Your task to perform on an android device: turn off translation in the chrome app Image 0: 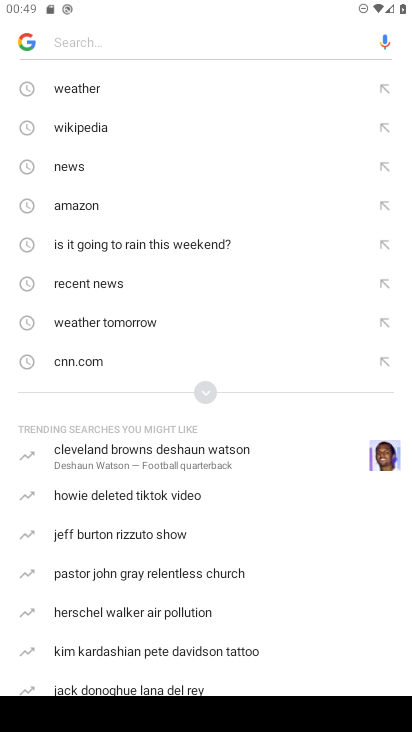
Step 0: press home button
Your task to perform on an android device: turn off translation in the chrome app Image 1: 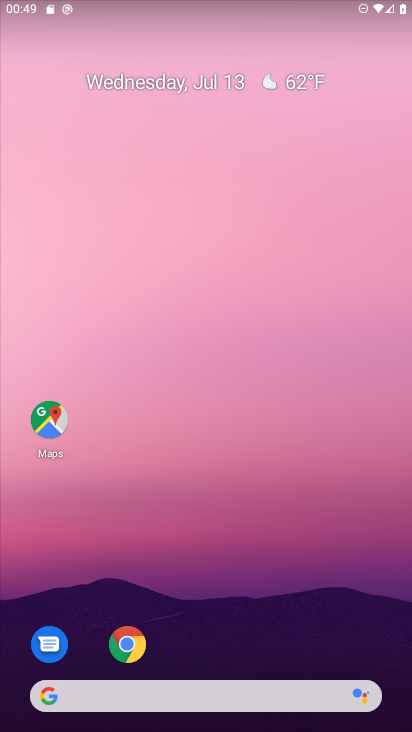
Step 1: drag from (239, 648) to (222, 110)
Your task to perform on an android device: turn off translation in the chrome app Image 2: 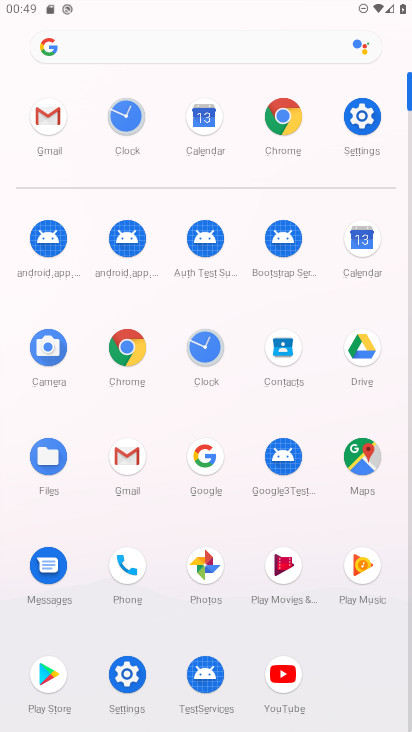
Step 2: click (291, 123)
Your task to perform on an android device: turn off translation in the chrome app Image 3: 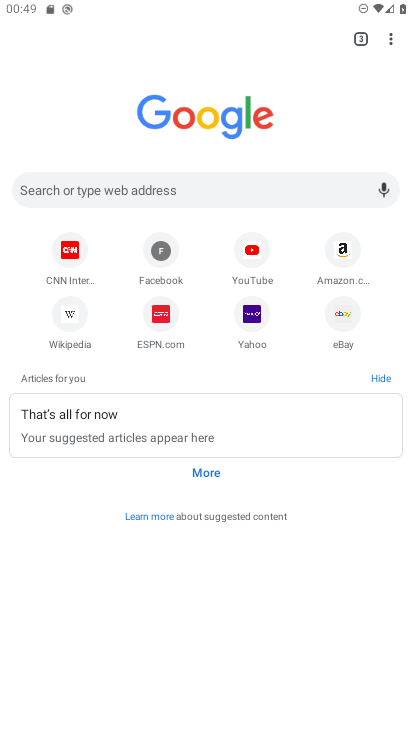
Step 3: click (393, 46)
Your task to perform on an android device: turn off translation in the chrome app Image 4: 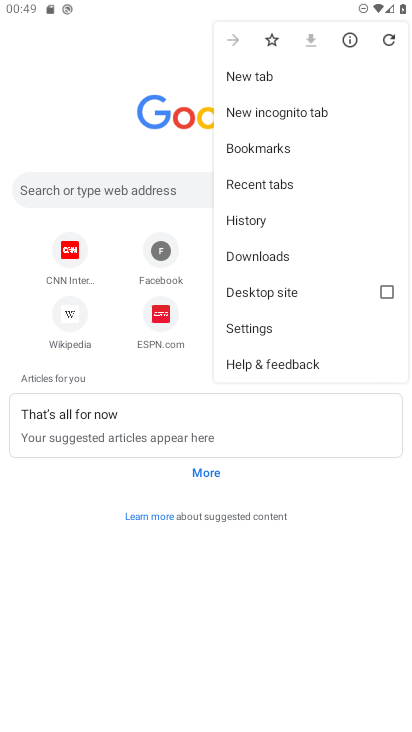
Step 4: click (244, 332)
Your task to perform on an android device: turn off translation in the chrome app Image 5: 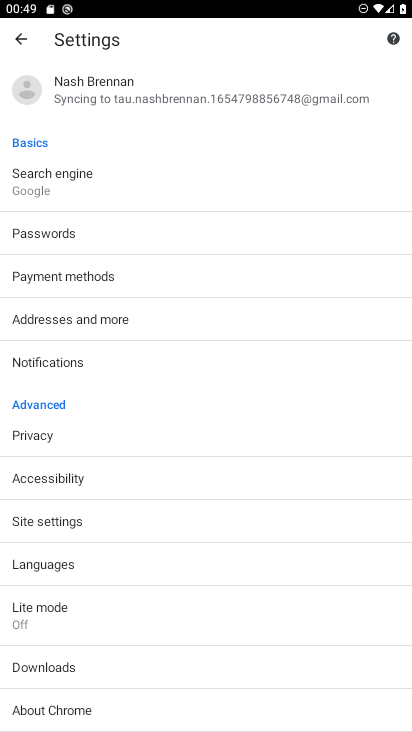
Step 5: click (80, 574)
Your task to perform on an android device: turn off translation in the chrome app Image 6: 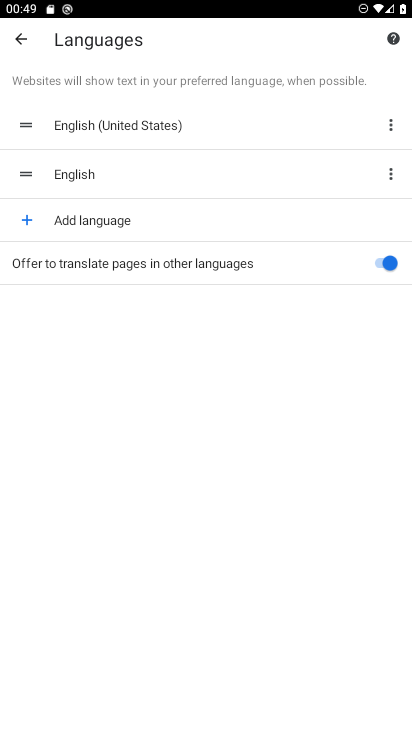
Step 6: click (387, 267)
Your task to perform on an android device: turn off translation in the chrome app Image 7: 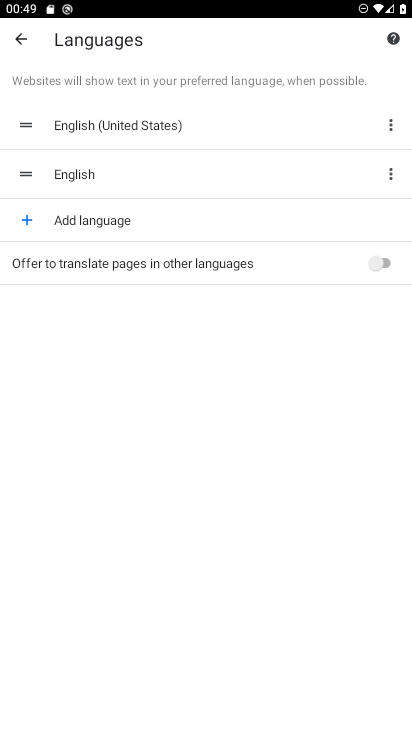
Step 7: task complete